Your task to perform on an android device: turn on notifications settings in the gmail app Image 0: 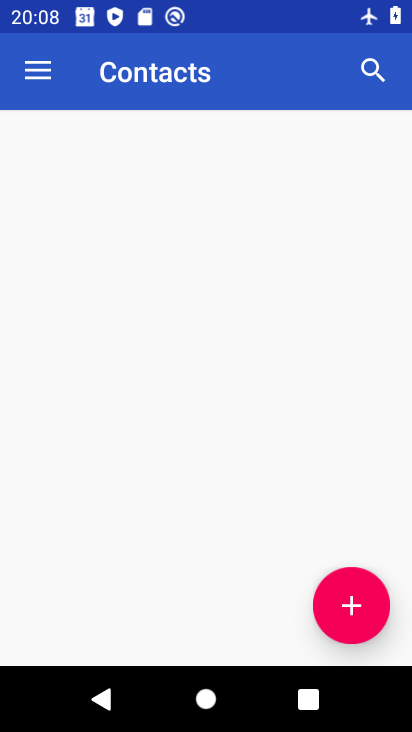
Step 0: press home button
Your task to perform on an android device: turn on notifications settings in the gmail app Image 1: 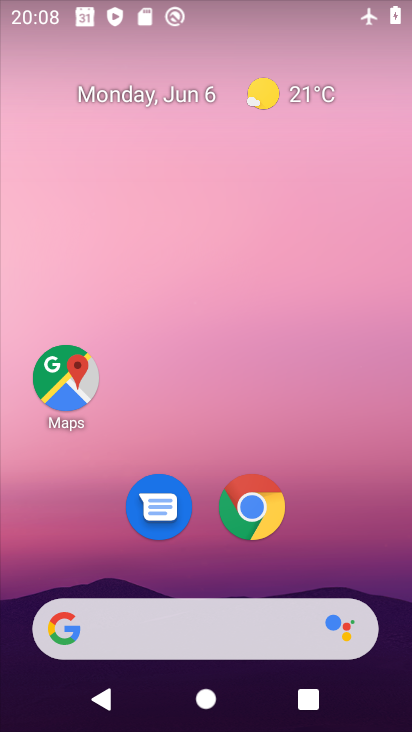
Step 1: click (205, 123)
Your task to perform on an android device: turn on notifications settings in the gmail app Image 2: 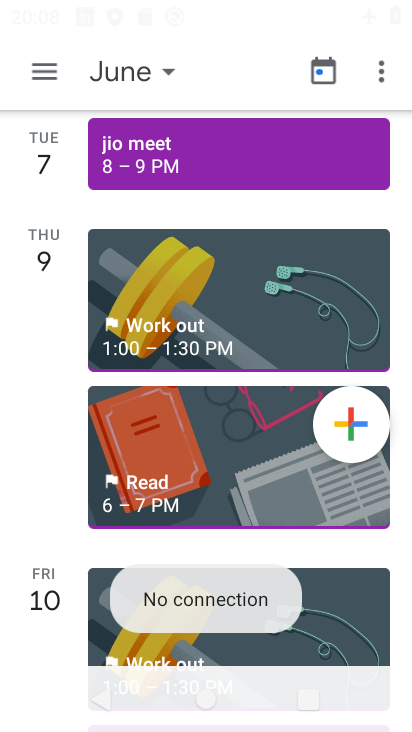
Step 2: drag from (205, 576) to (205, 6)
Your task to perform on an android device: turn on notifications settings in the gmail app Image 3: 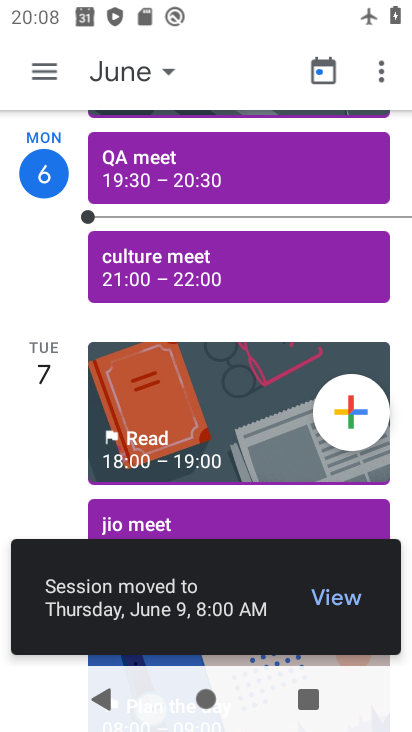
Step 3: press home button
Your task to perform on an android device: turn on notifications settings in the gmail app Image 4: 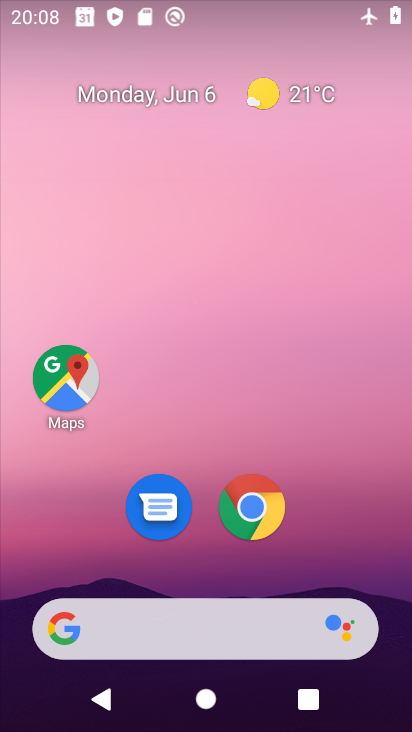
Step 4: drag from (190, 577) to (180, 177)
Your task to perform on an android device: turn on notifications settings in the gmail app Image 5: 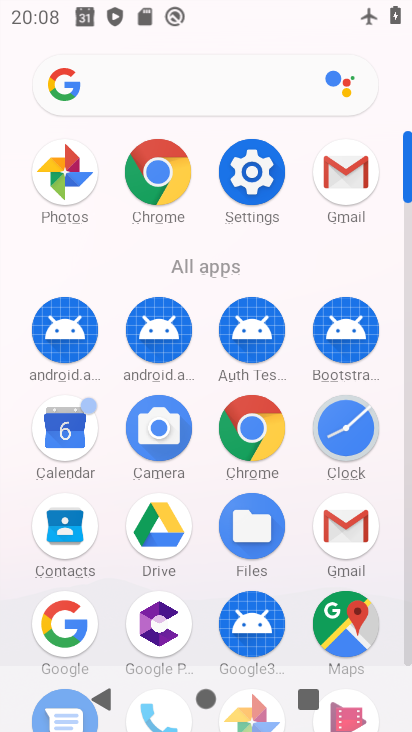
Step 5: click (349, 187)
Your task to perform on an android device: turn on notifications settings in the gmail app Image 6: 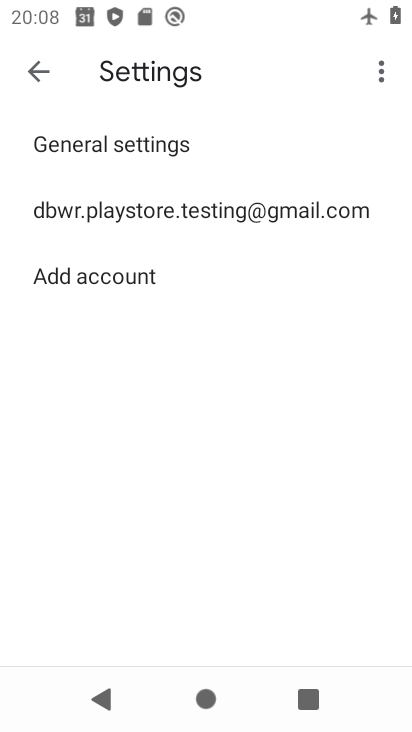
Step 6: click (140, 205)
Your task to perform on an android device: turn on notifications settings in the gmail app Image 7: 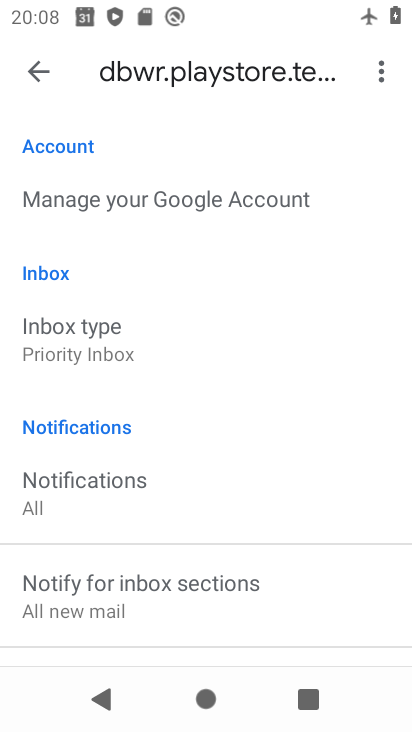
Step 7: click (86, 500)
Your task to perform on an android device: turn on notifications settings in the gmail app Image 8: 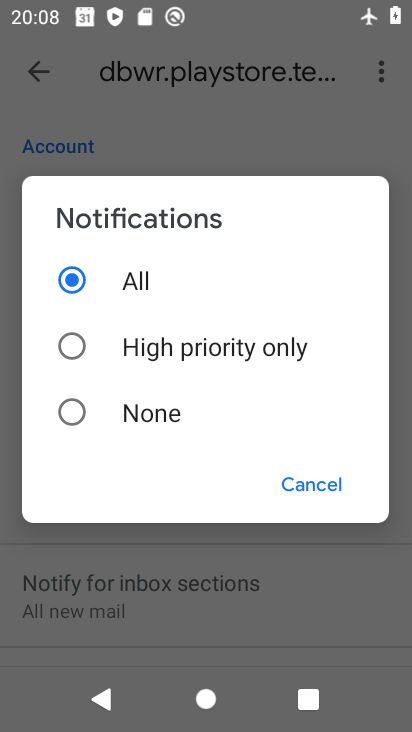
Step 8: click (309, 477)
Your task to perform on an android device: turn on notifications settings in the gmail app Image 9: 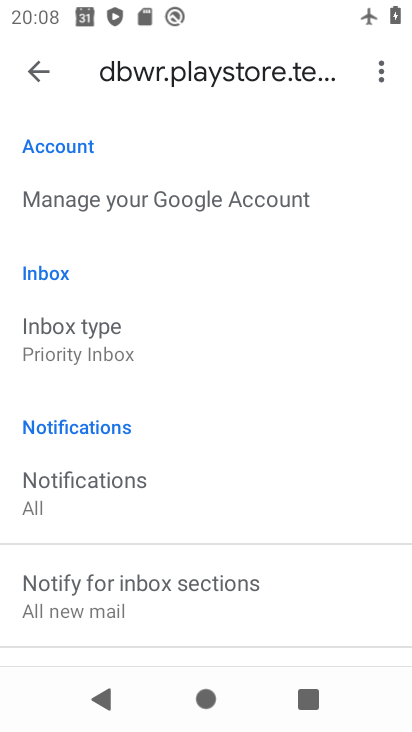
Step 9: drag from (194, 614) to (191, 363)
Your task to perform on an android device: turn on notifications settings in the gmail app Image 10: 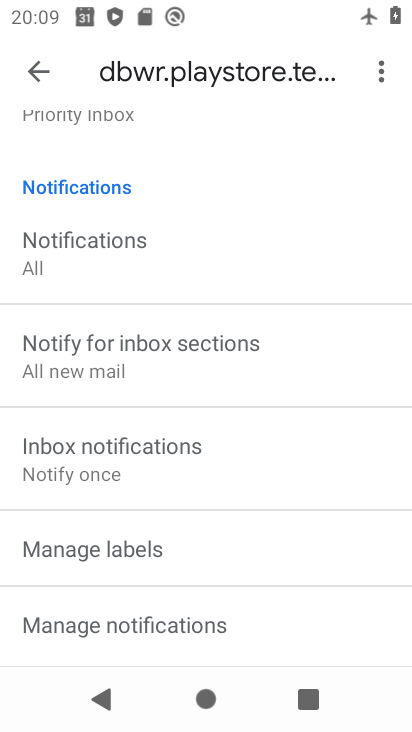
Step 10: click (132, 632)
Your task to perform on an android device: turn on notifications settings in the gmail app Image 11: 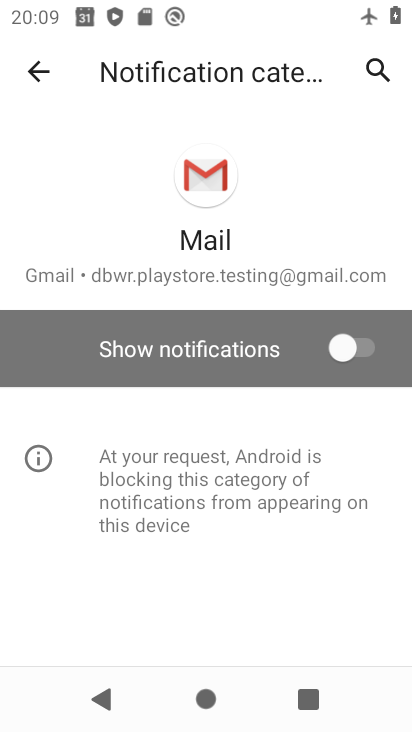
Step 11: click (379, 349)
Your task to perform on an android device: turn on notifications settings in the gmail app Image 12: 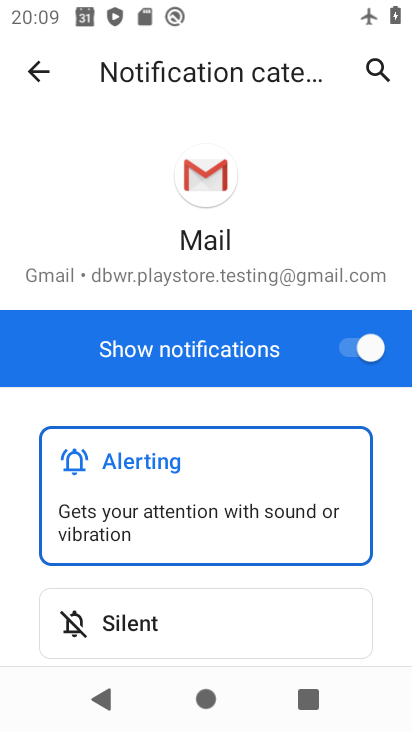
Step 12: task complete